Your task to perform on an android device: Open calendar and show me the second week of next month Image 0: 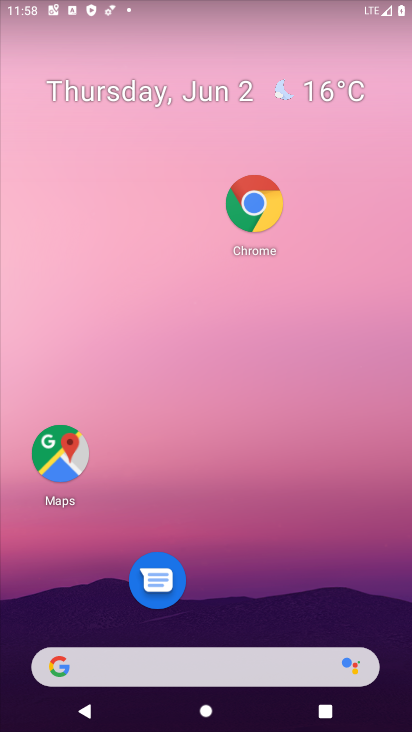
Step 0: drag from (260, 616) to (260, 449)
Your task to perform on an android device: Open calendar and show me the second week of next month Image 1: 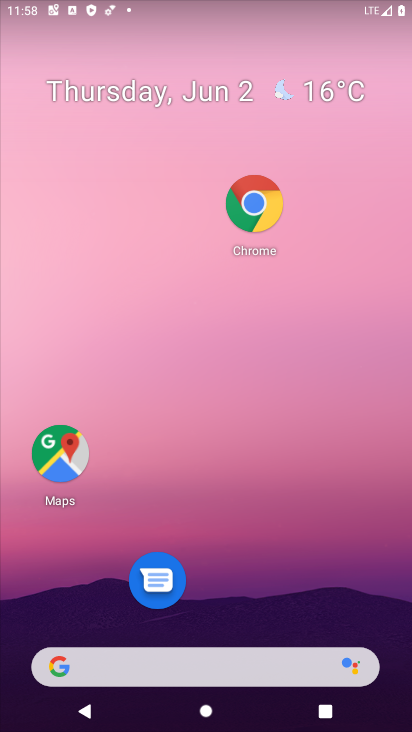
Step 1: drag from (244, 603) to (277, 395)
Your task to perform on an android device: Open calendar and show me the second week of next month Image 2: 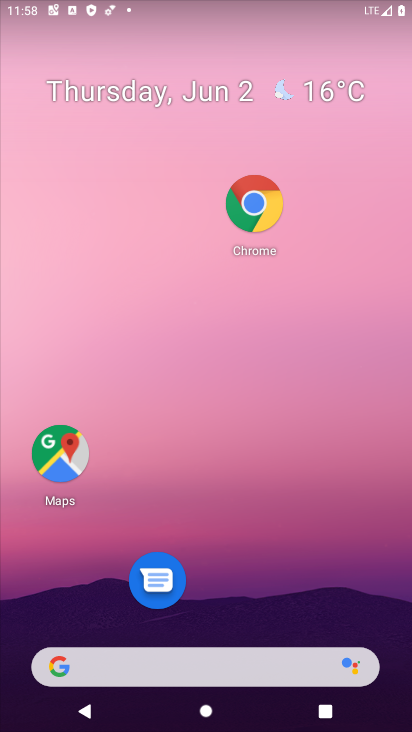
Step 2: drag from (257, 576) to (291, 132)
Your task to perform on an android device: Open calendar and show me the second week of next month Image 3: 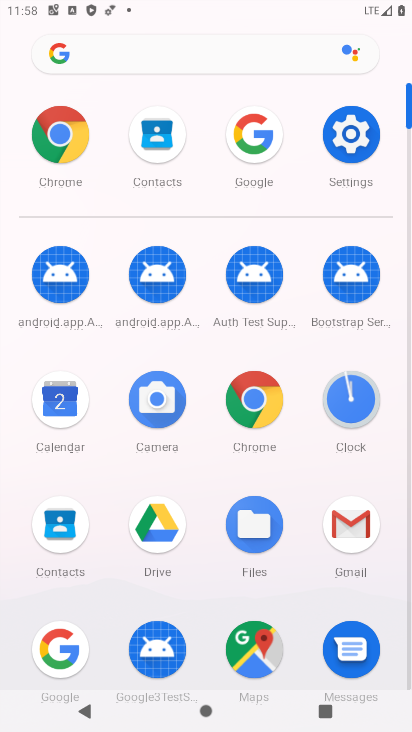
Step 3: drag from (223, 455) to (249, 368)
Your task to perform on an android device: Open calendar and show me the second week of next month Image 4: 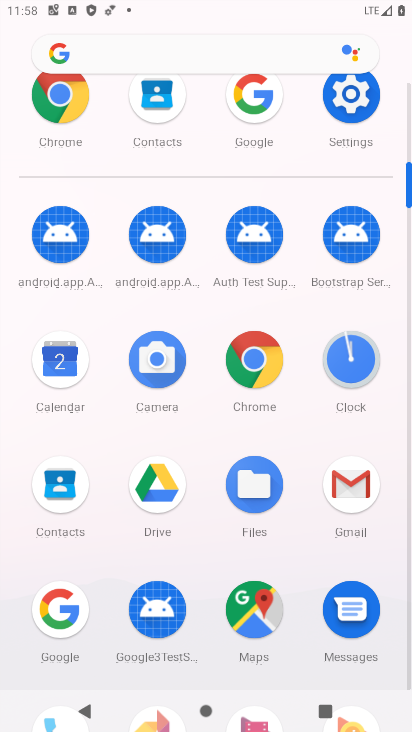
Step 4: click (198, 500)
Your task to perform on an android device: Open calendar and show me the second week of next month Image 5: 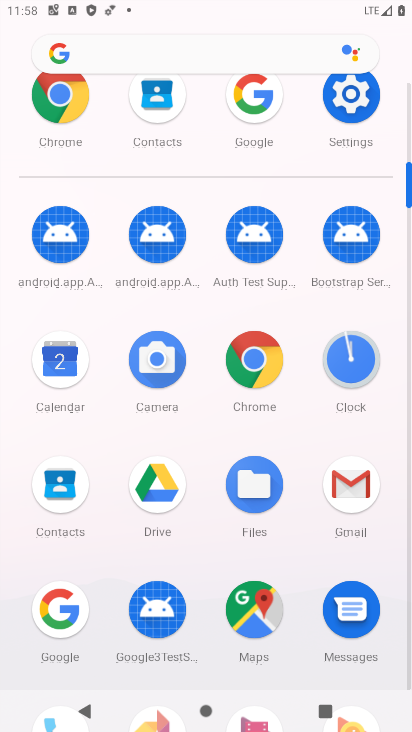
Step 5: click (65, 359)
Your task to perform on an android device: Open calendar and show me the second week of next month Image 6: 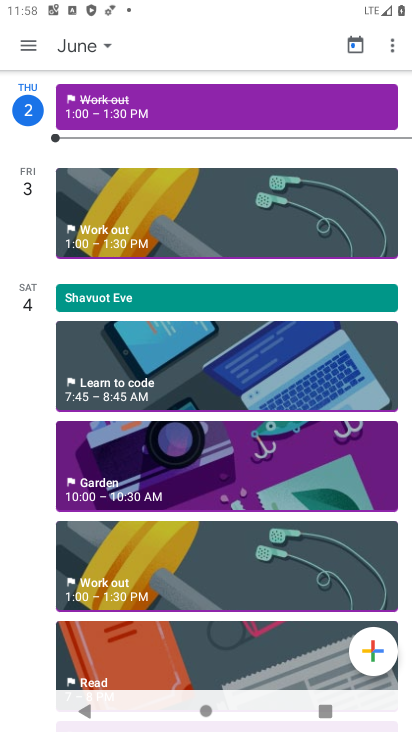
Step 6: click (78, 46)
Your task to perform on an android device: Open calendar and show me the second week of next month Image 7: 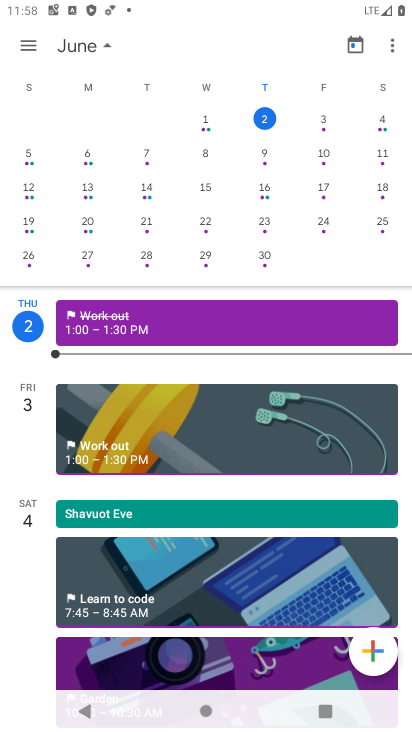
Step 7: drag from (319, 215) to (129, 194)
Your task to perform on an android device: Open calendar and show me the second week of next month Image 8: 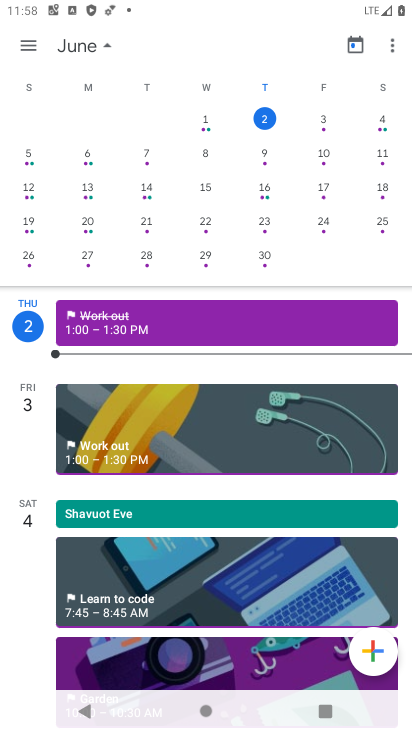
Step 8: drag from (393, 241) to (3, 208)
Your task to perform on an android device: Open calendar and show me the second week of next month Image 9: 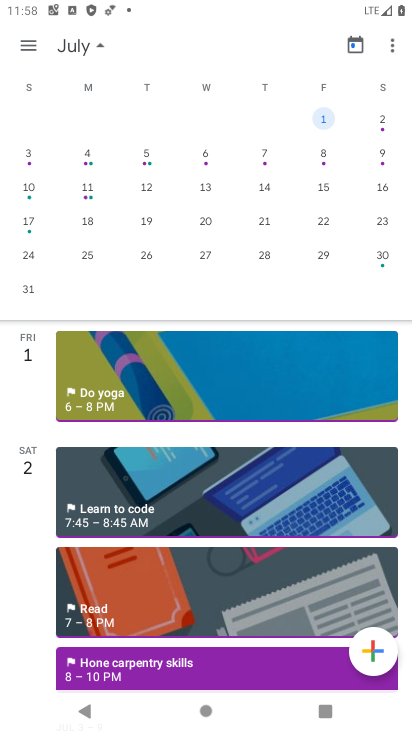
Step 9: click (36, 166)
Your task to perform on an android device: Open calendar and show me the second week of next month Image 10: 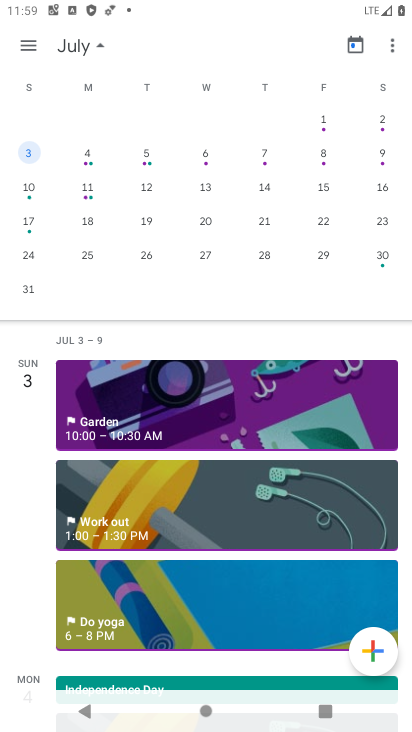
Step 10: task complete